Your task to perform on an android device: Open Android settings Image 0: 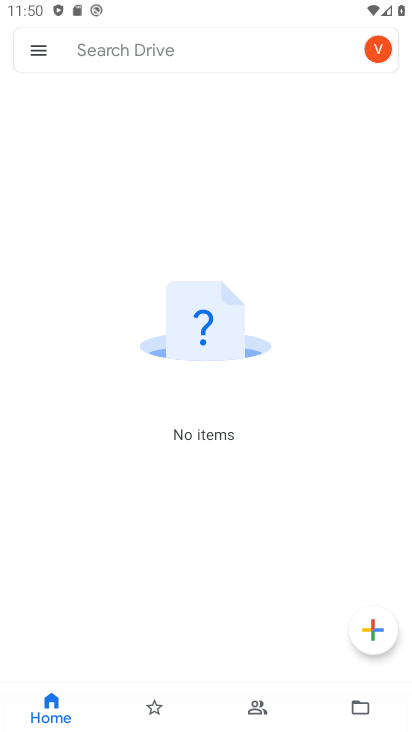
Step 0: press home button
Your task to perform on an android device: Open Android settings Image 1: 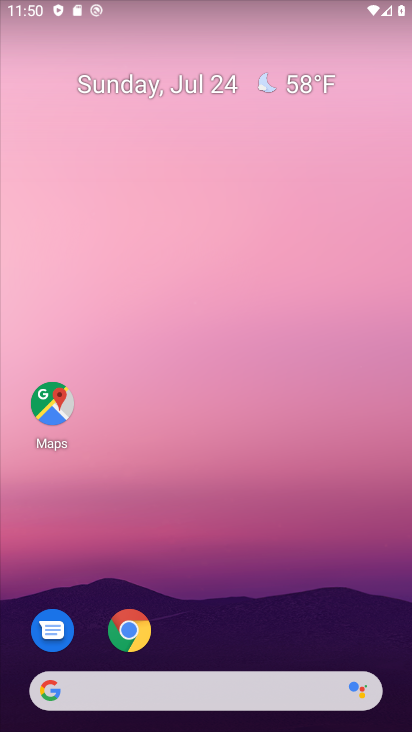
Step 1: drag from (243, 626) to (214, 121)
Your task to perform on an android device: Open Android settings Image 2: 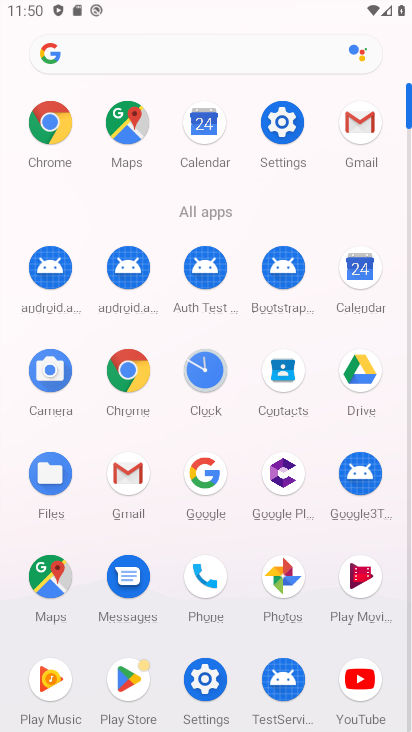
Step 2: click (286, 133)
Your task to perform on an android device: Open Android settings Image 3: 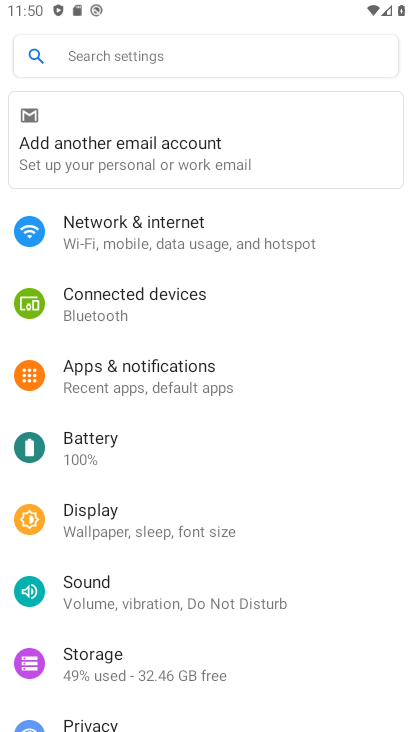
Step 3: task complete